Your task to perform on an android device: open a new tab in the chrome app Image 0: 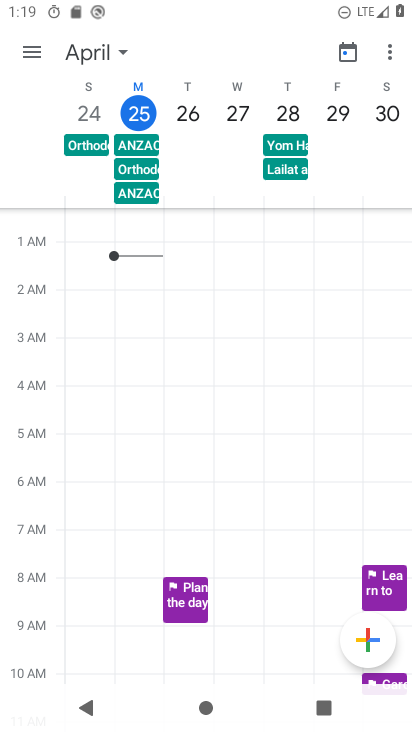
Step 0: press home button
Your task to perform on an android device: open a new tab in the chrome app Image 1: 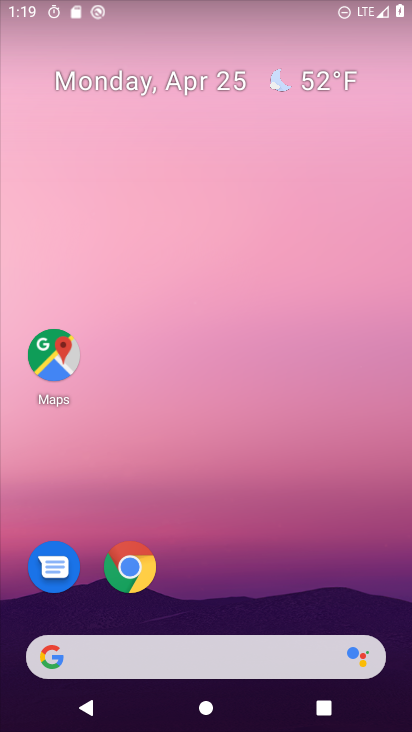
Step 1: click (145, 558)
Your task to perform on an android device: open a new tab in the chrome app Image 2: 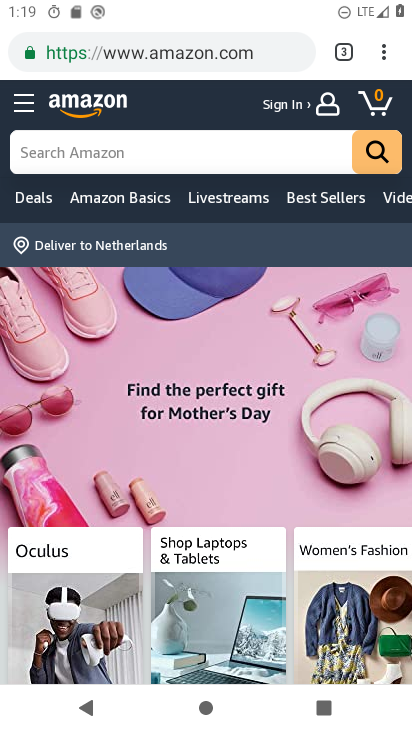
Step 2: task complete